Your task to perform on an android device: Open Amazon Image 0: 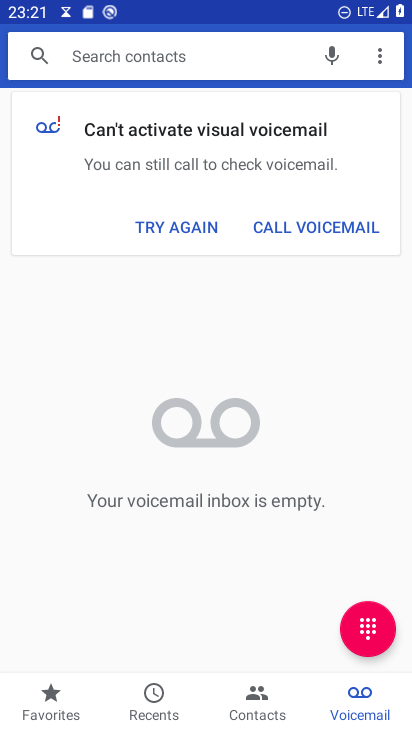
Step 0: press home button
Your task to perform on an android device: Open Amazon Image 1: 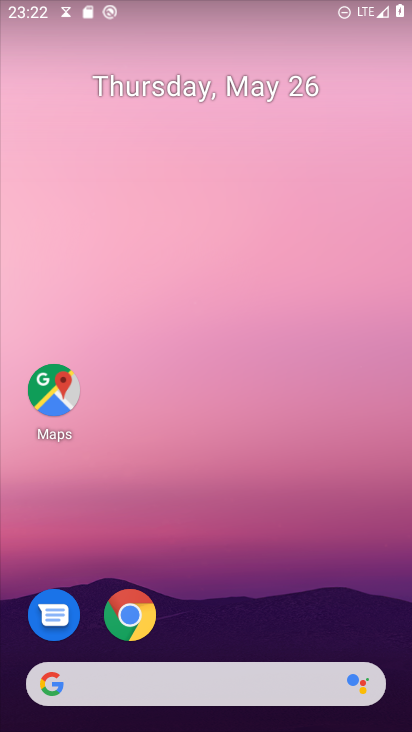
Step 1: click (131, 614)
Your task to perform on an android device: Open Amazon Image 2: 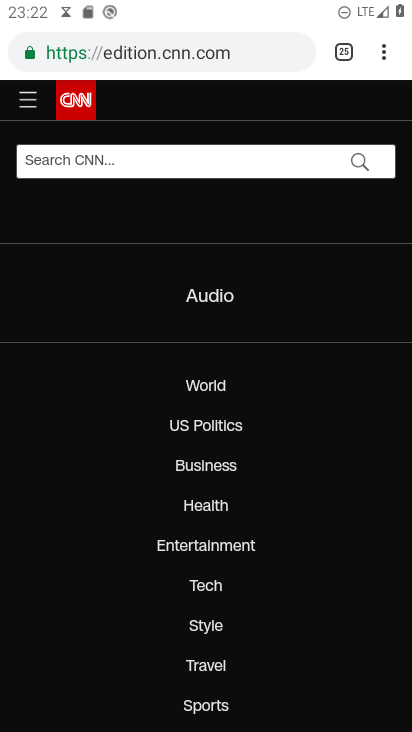
Step 2: click (390, 41)
Your task to perform on an android device: Open Amazon Image 3: 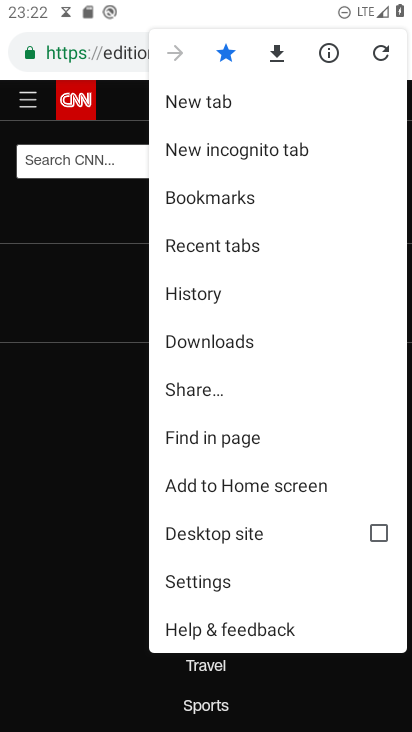
Step 3: click (238, 107)
Your task to perform on an android device: Open Amazon Image 4: 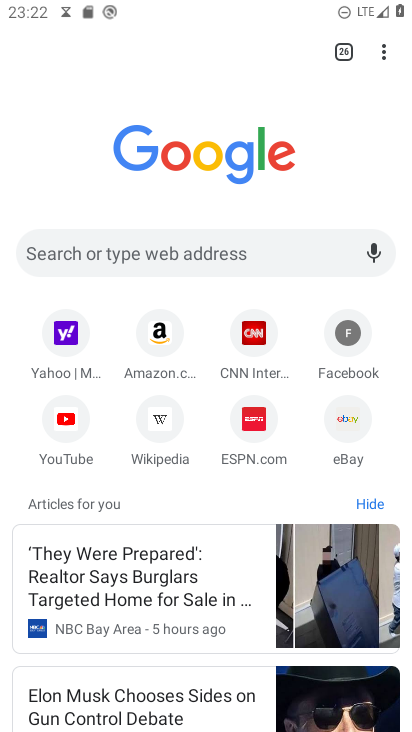
Step 4: click (158, 330)
Your task to perform on an android device: Open Amazon Image 5: 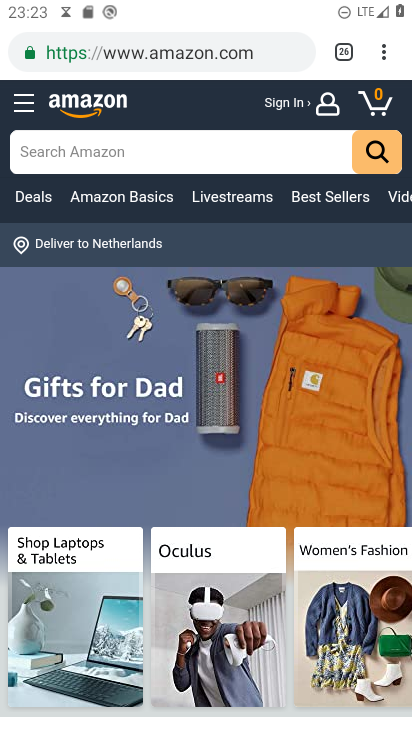
Step 5: task complete